Your task to perform on an android device: Turn off the flashlight Image 0: 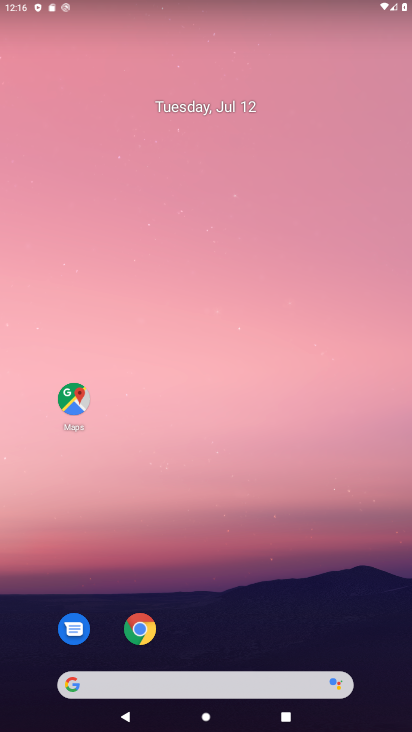
Step 0: drag from (205, 2) to (279, 721)
Your task to perform on an android device: Turn off the flashlight Image 1: 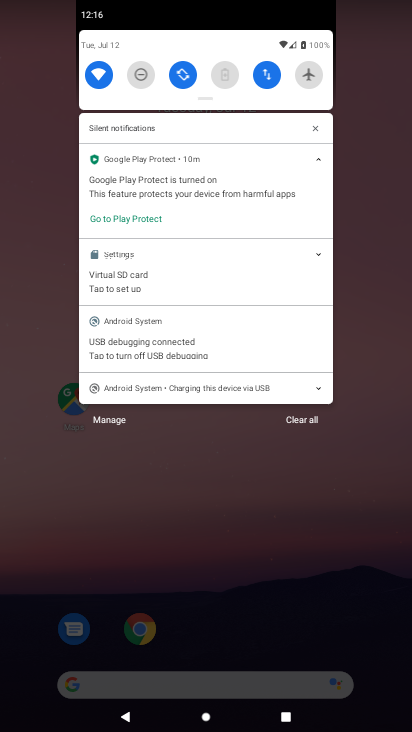
Step 1: task complete